Your task to perform on an android device: turn on showing notifications on the lock screen Image 0: 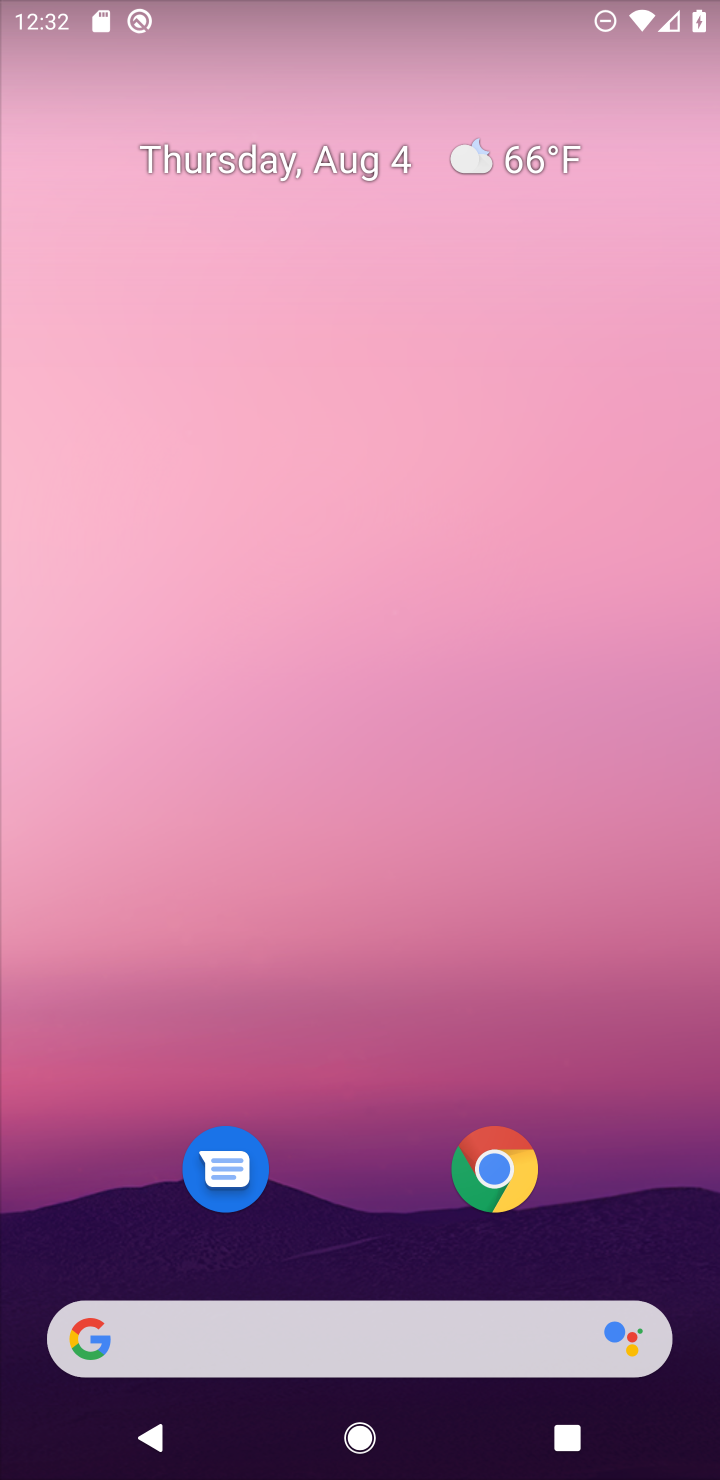
Step 0: drag from (347, 1200) to (336, 0)
Your task to perform on an android device: turn on showing notifications on the lock screen Image 1: 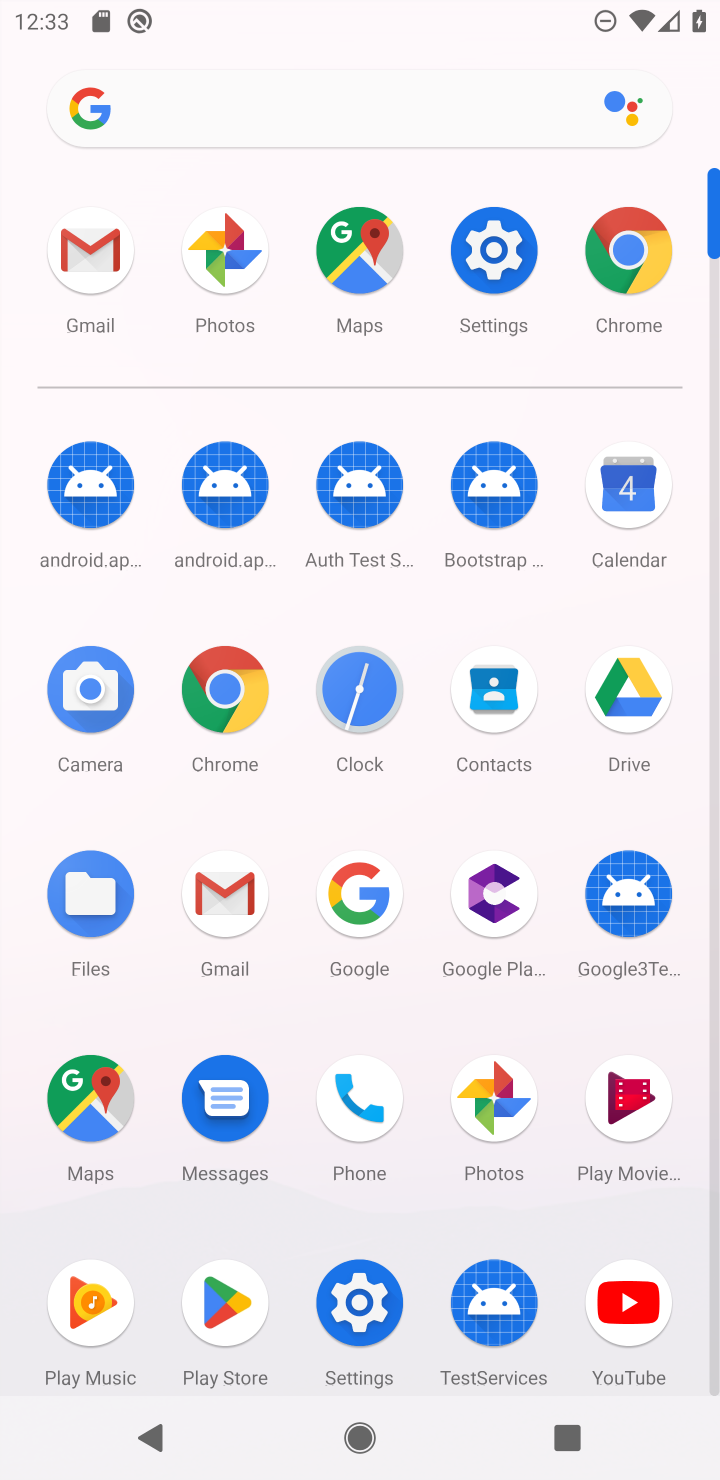
Step 1: click (484, 254)
Your task to perform on an android device: turn on showing notifications on the lock screen Image 2: 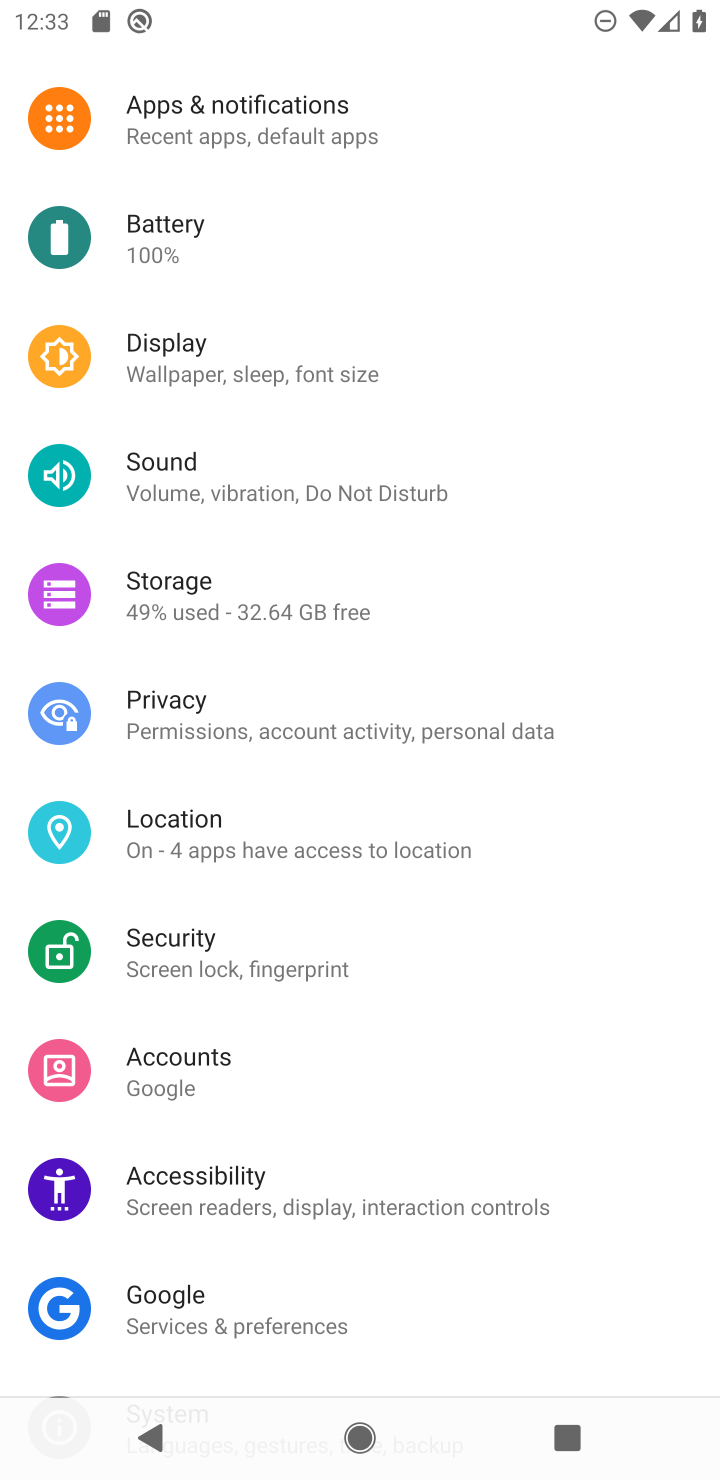
Step 2: click (250, 143)
Your task to perform on an android device: turn on showing notifications on the lock screen Image 3: 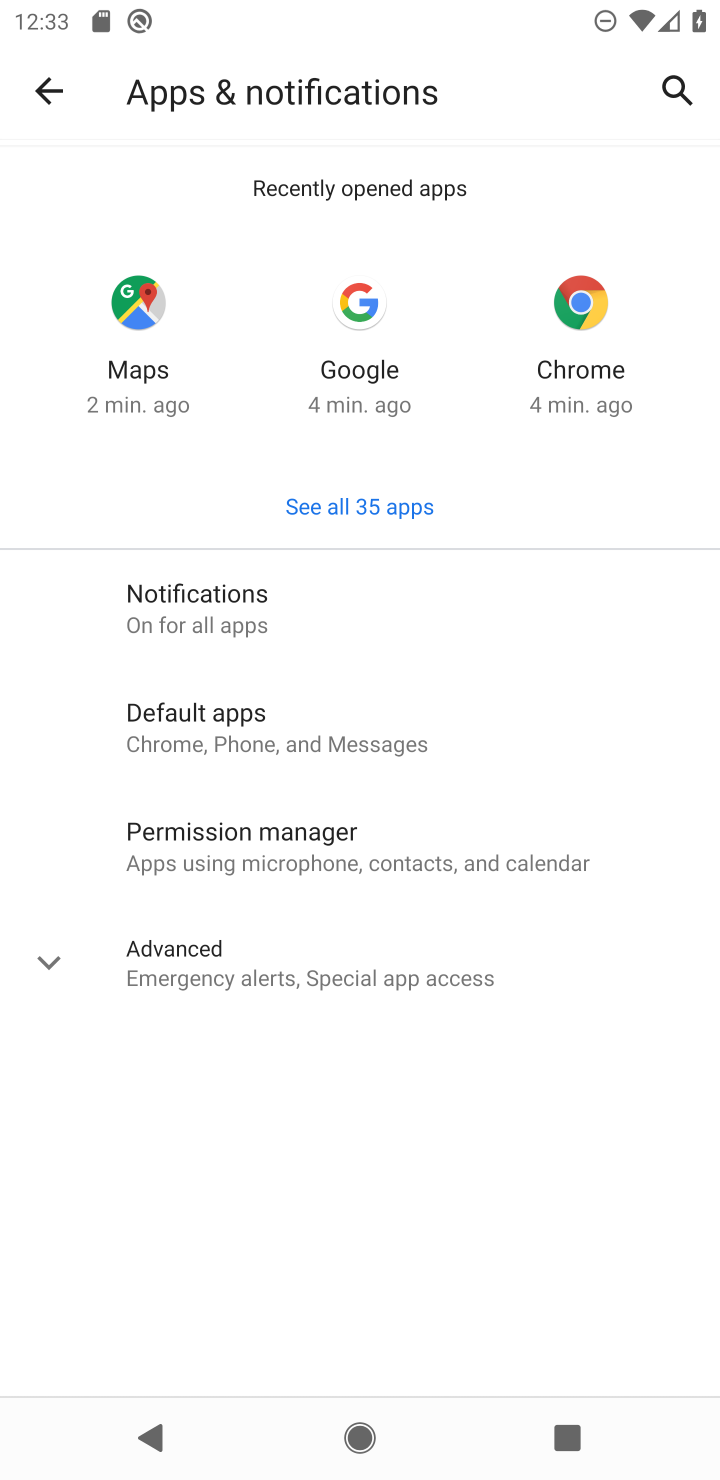
Step 3: click (223, 604)
Your task to perform on an android device: turn on showing notifications on the lock screen Image 4: 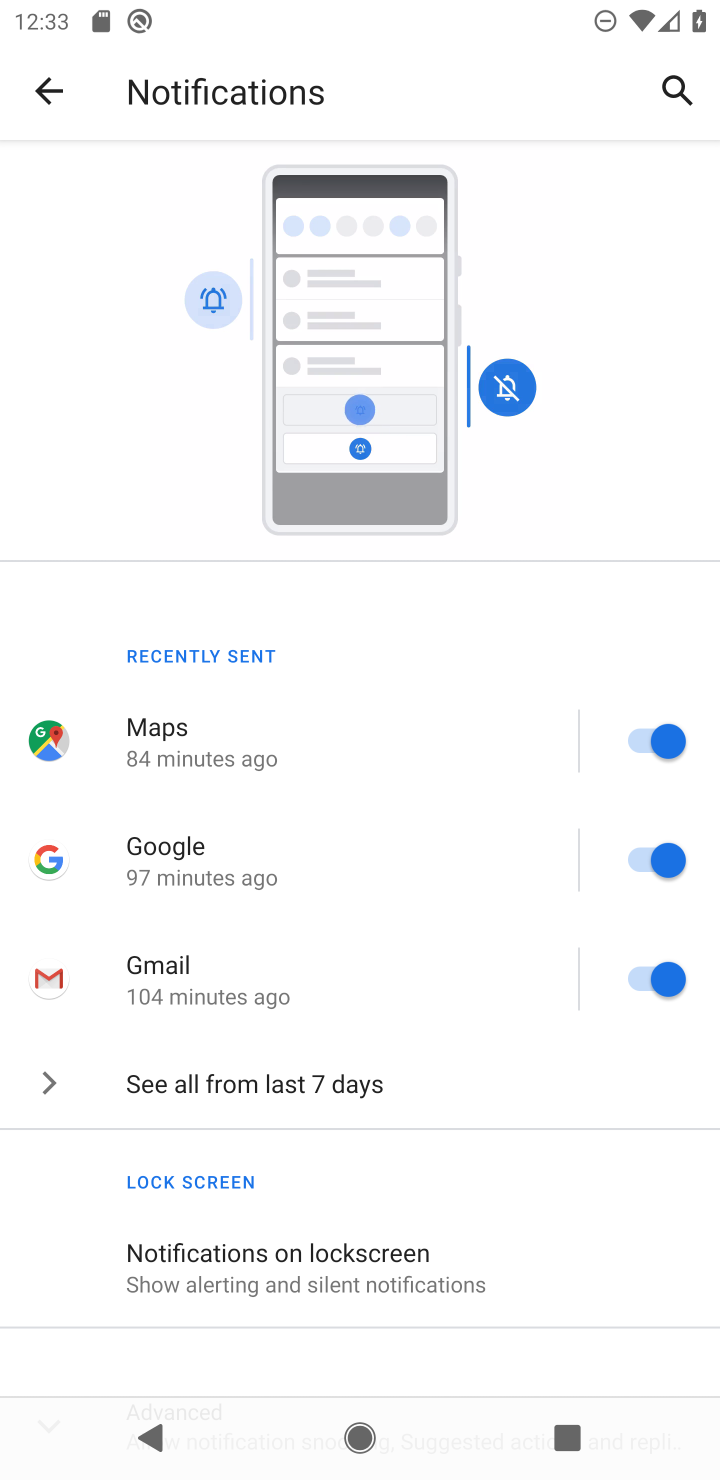
Step 4: click (270, 1280)
Your task to perform on an android device: turn on showing notifications on the lock screen Image 5: 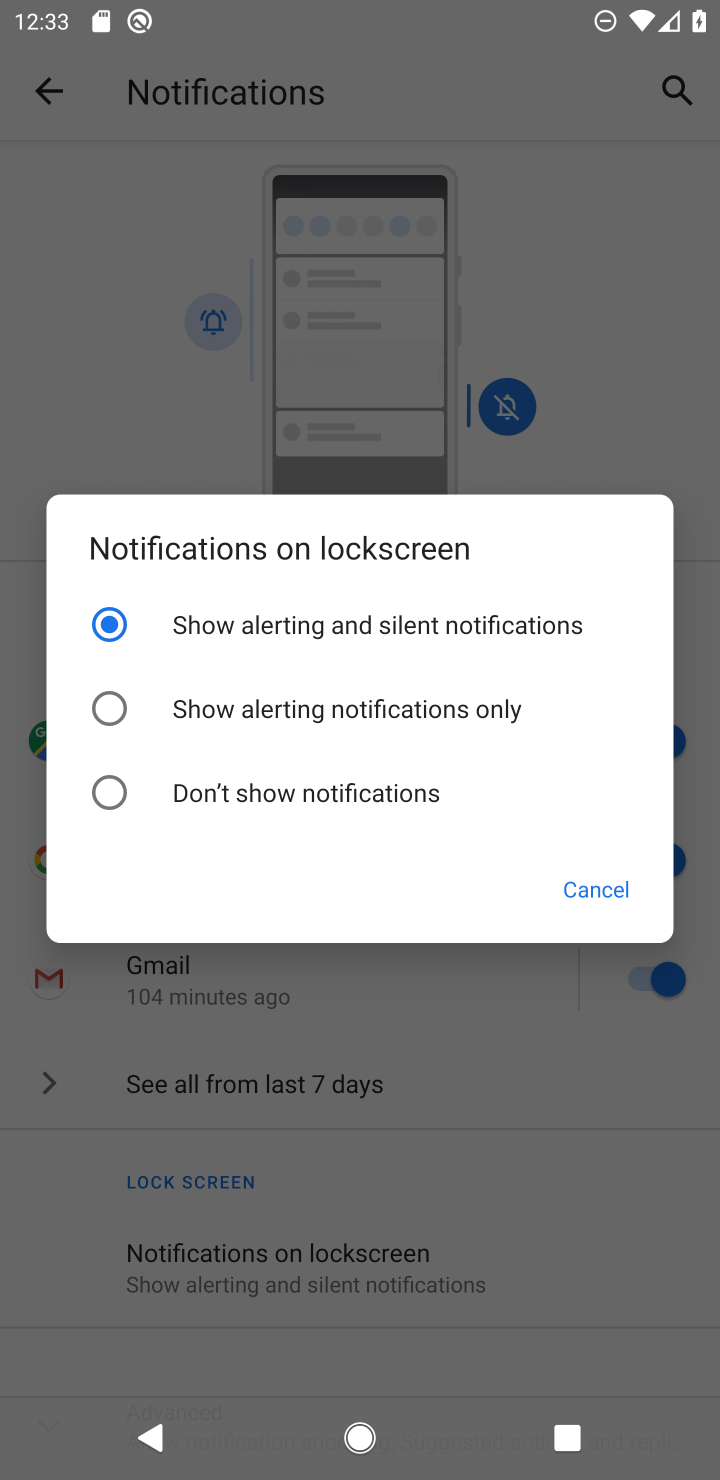
Step 5: task complete